Your task to perform on an android device: see sites visited before in the chrome app Image 0: 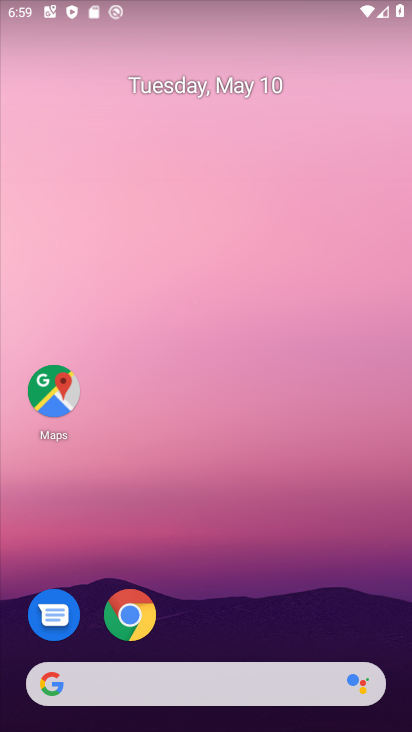
Step 0: click (129, 620)
Your task to perform on an android device: see sites visited before in the chrome app Image 1: 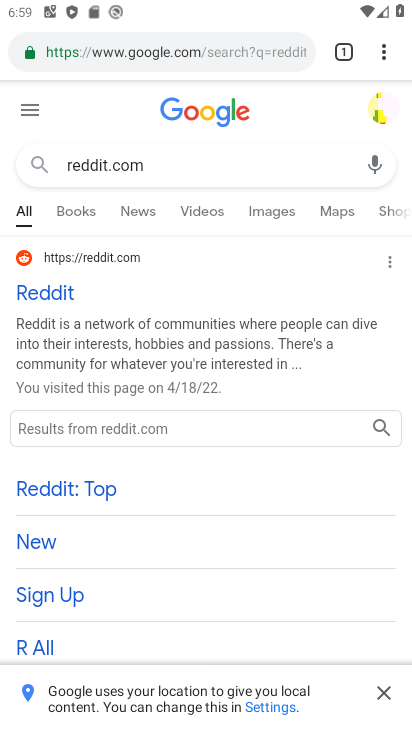
Step 1: click (380, 50)
Your task to perform on an android device: see sites visited before in the chrome app Image 2: 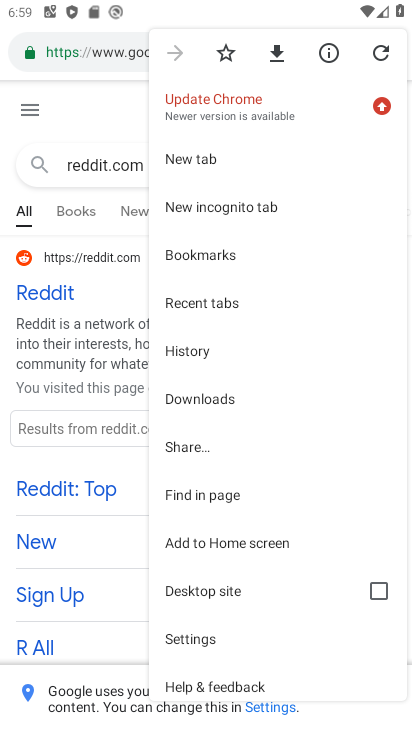
Step 2: click (189, 352)
Your task to perform on an android device: see sites visited before in the chrome app Image 3: 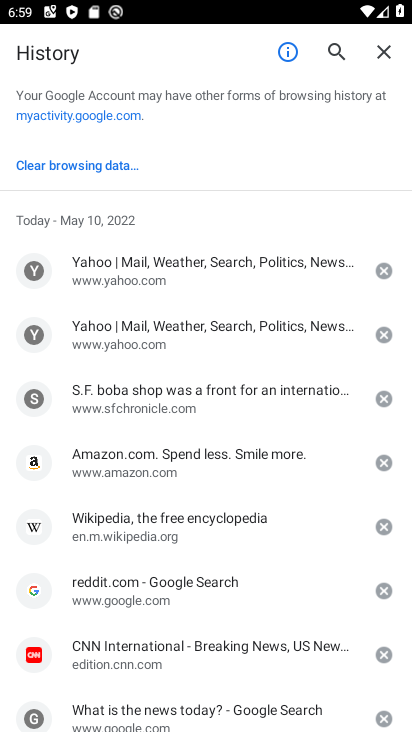
Step 3: task complete